Your task to perform on an android device: open wifi settings Image 0: 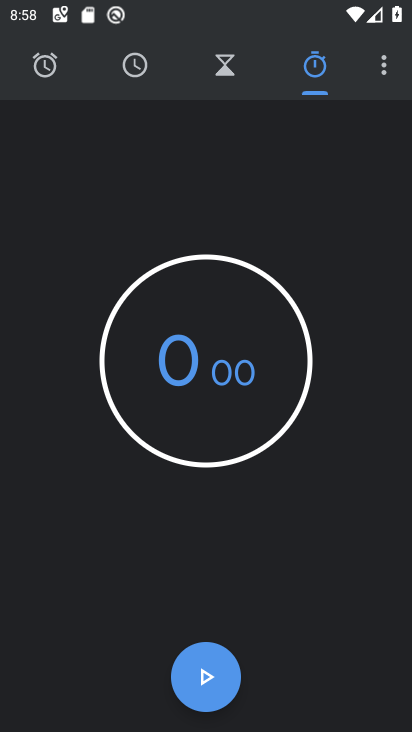
Step 0: press home button
Your task to perform on an android device: open wifi settings Image 1: 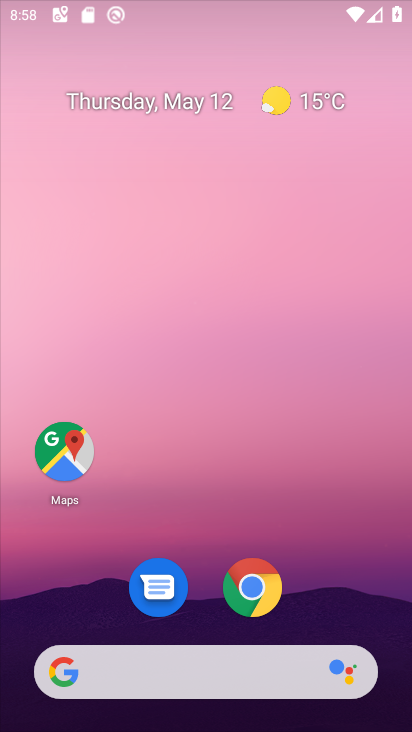
Step 1: drag from (387, 639) to (269, 69)
Your task to perform on an android device: open wifi settings Image 2: 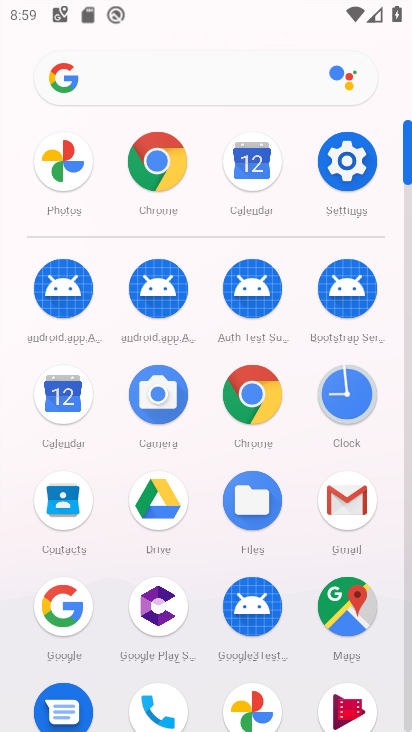
Step 2: click (326, 179)
Your task to perform on an android device: open wifi settings Image 3: 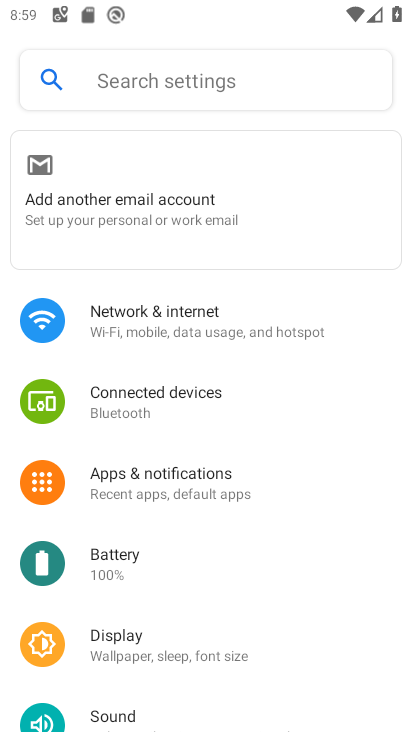
Step 3: click (124, 344)
Your task to perform on an android device: open wifi settings Image 4: 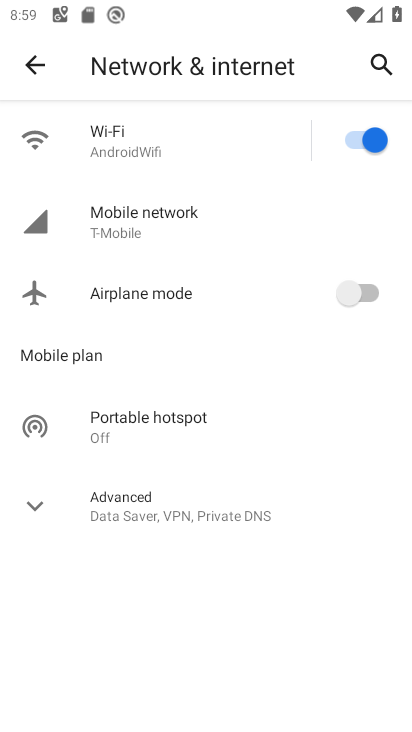
Step 4: click (163, 146)
Your task to perform on an android device: open wifi settings Image 5: 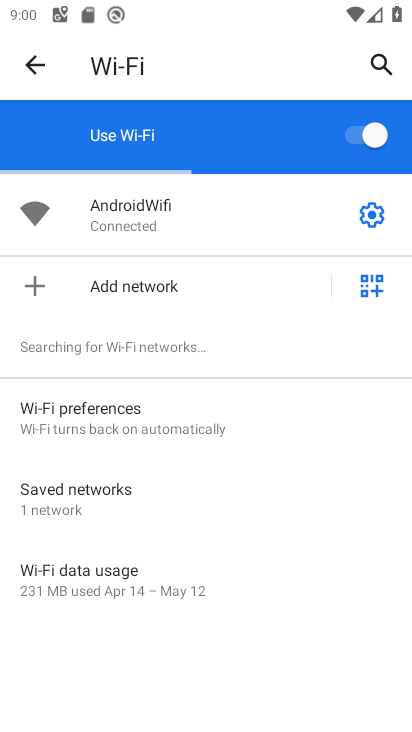
Step 5: task complete